Your task to perform on an android device: delete browsing data in the chrome app Image 0: 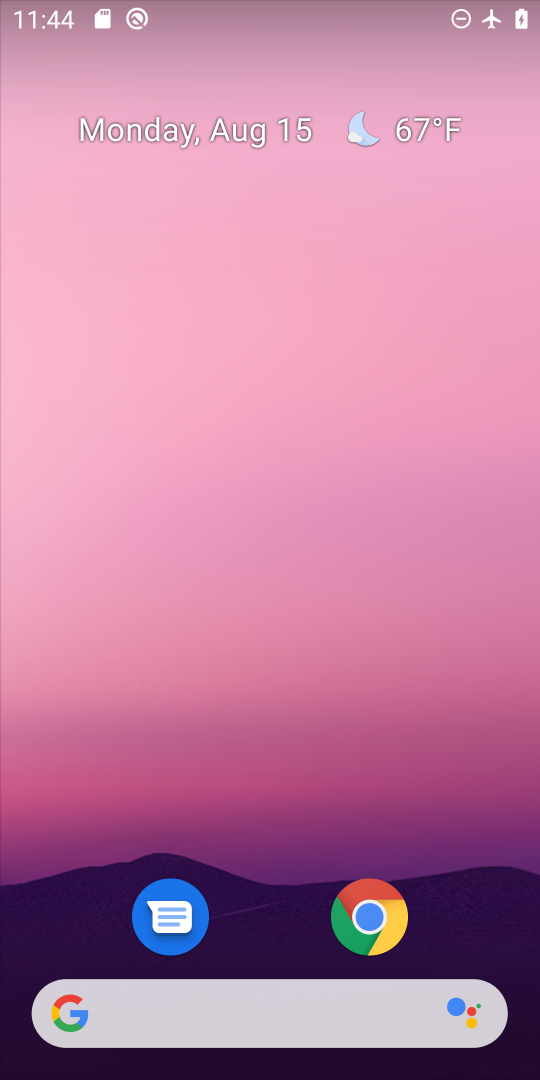
Step 0: click (364, 903)
Your task to perform on an android device: delete browsing data in the chrome app Image 1: 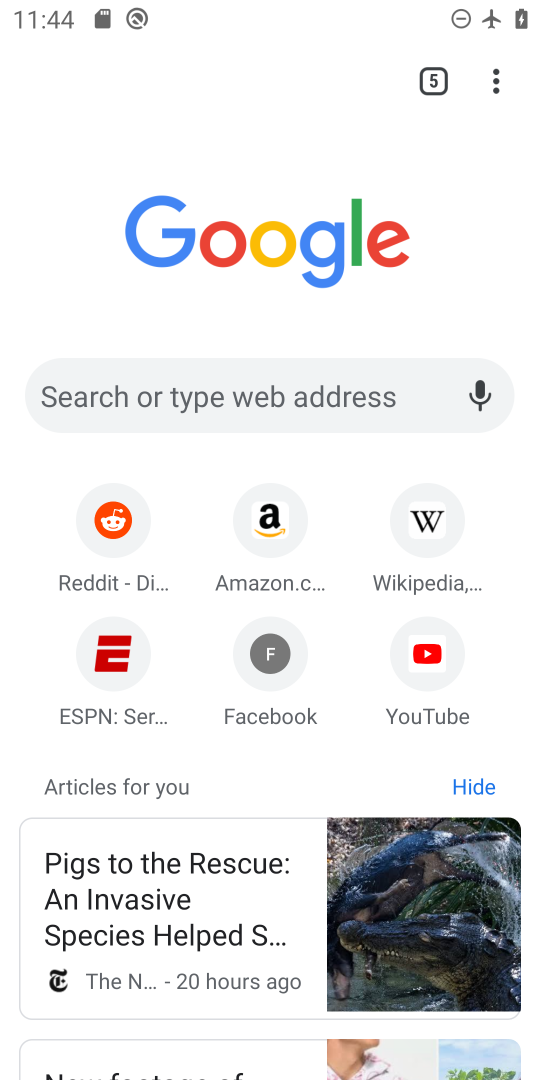
Step 1: click (498, 91)
Your task to perform on an android device: delete browsing data in the chrome app Image 2: 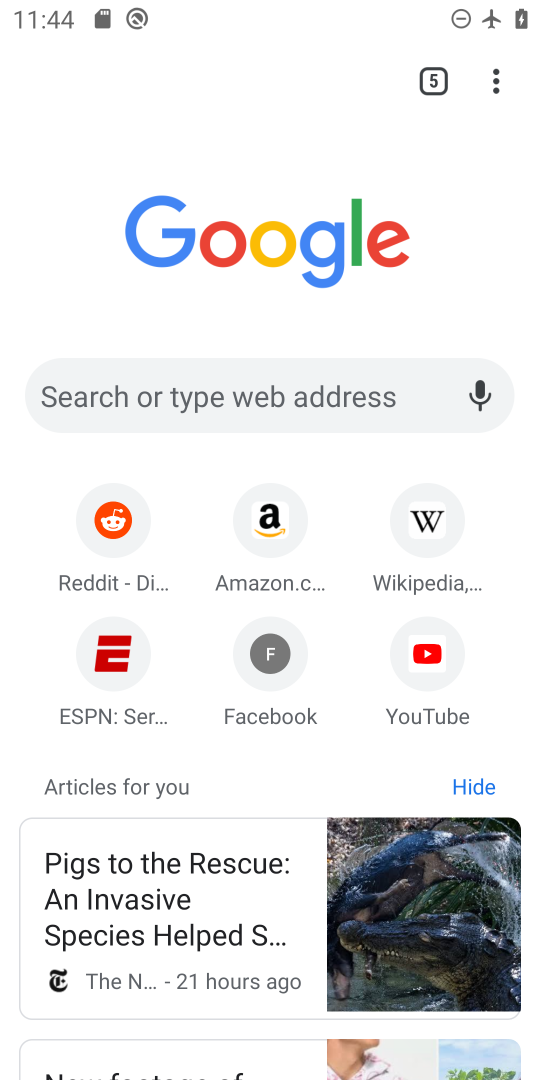
Step 2: click (493, 91)
Your task to perform on an android device: delete browsing data in the chrome app Image 3: 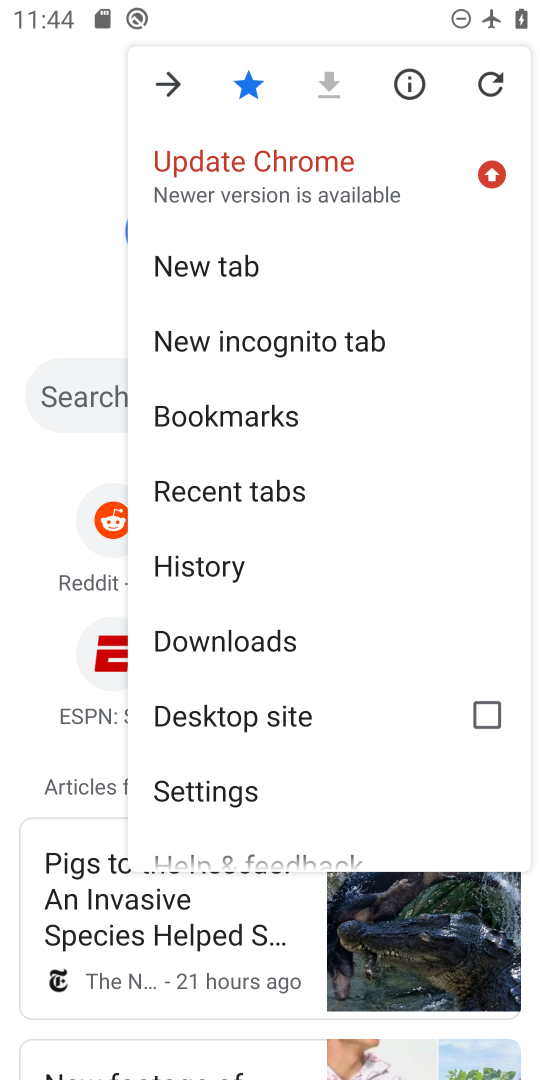
Step 3: click (252, 557)
Your task to perform on an android device: delete browsing data in the chrome app Image 4: 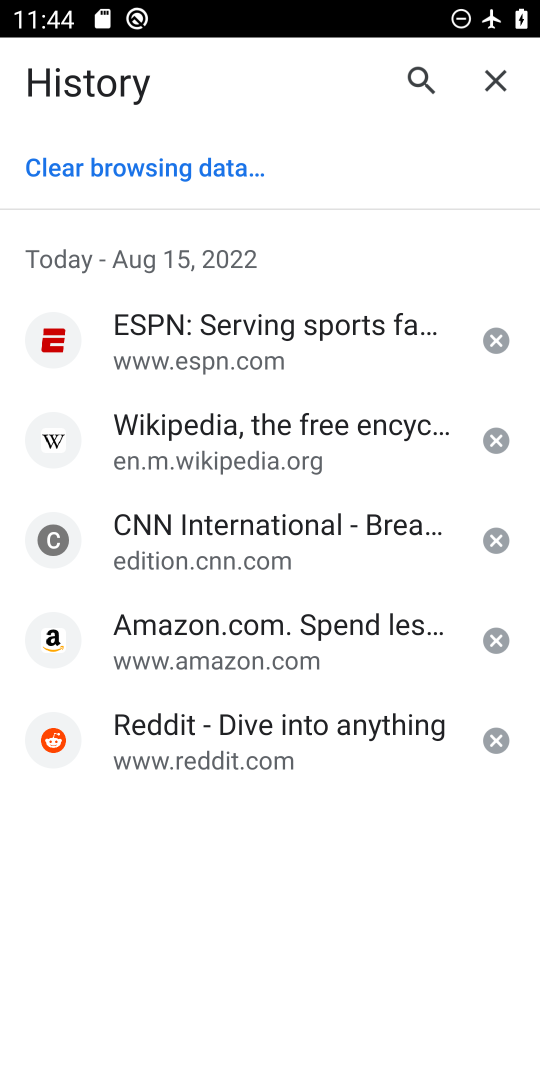
Step 4: click (187, 168)
Your task to perform on an android device: delete browsing data in the chrome app Image 5: 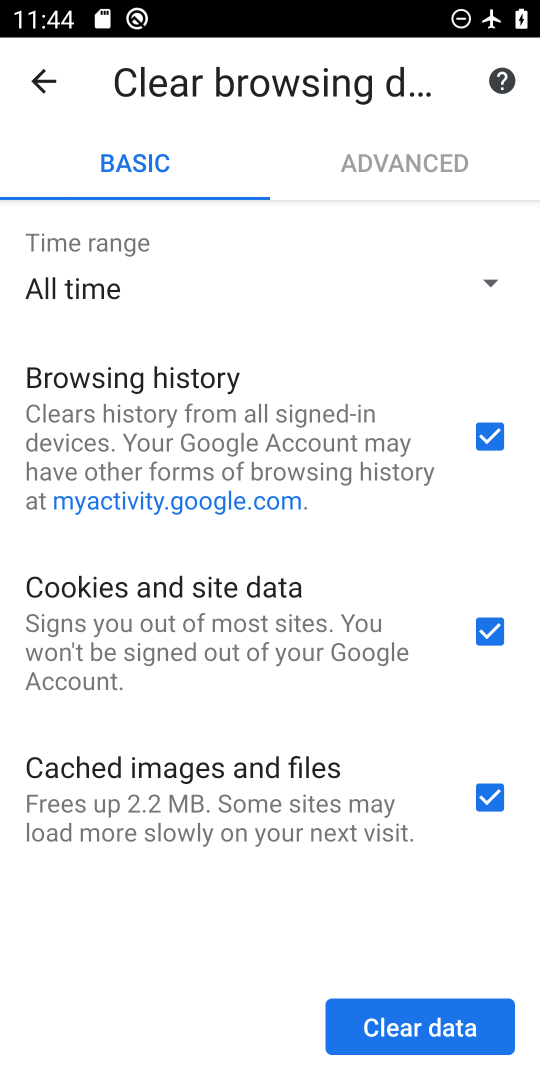
Step 5: click (466, 1020)
Your task to perform on an android device: delete browsing data in the chrome app Image 6: 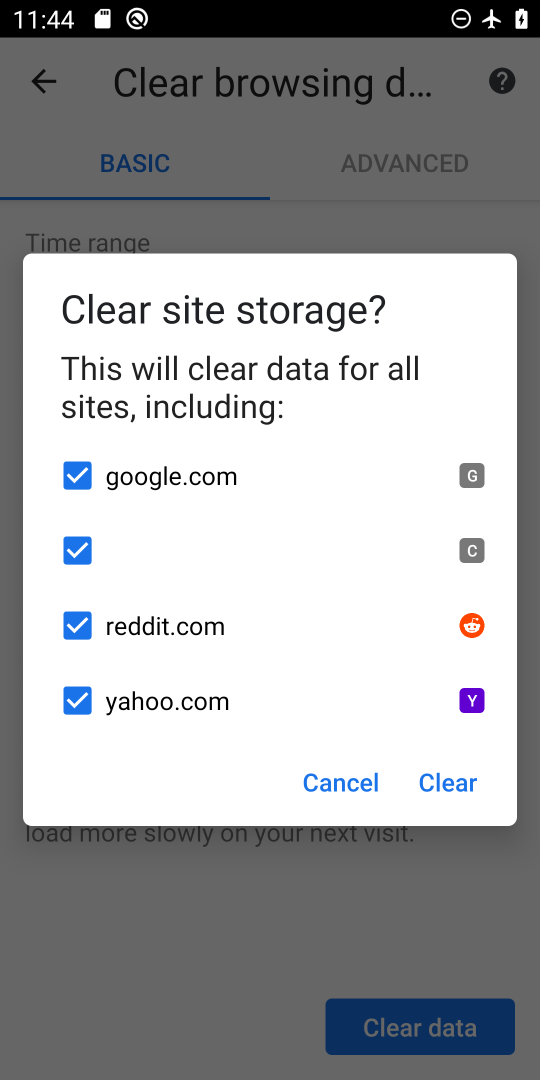
Step 6: click (464, 777)
Your task to perform on an android device: delete browsing data in the chrome app Image 7: 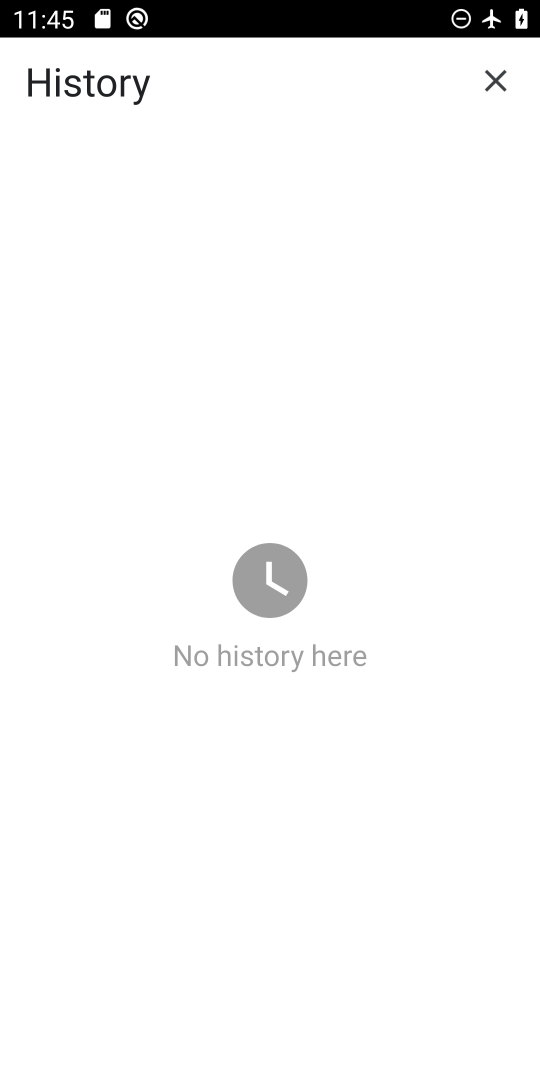
Step 7: task complete